Your task to perform on an android device: change notifications settings Image 0: 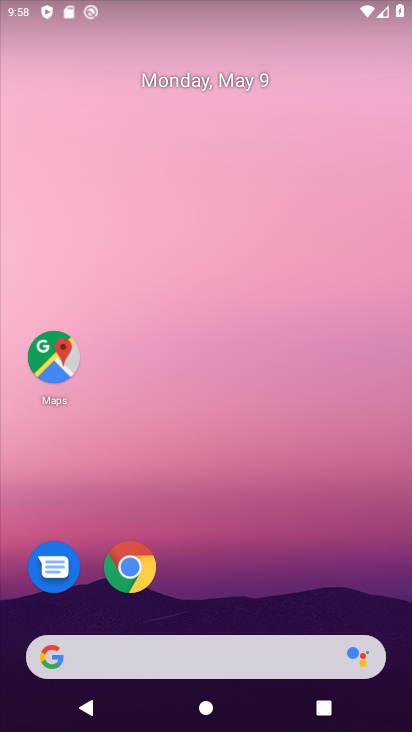
Step 0: click (45, 362)
Your task to perform on an android device: change notifications settings Image 1: 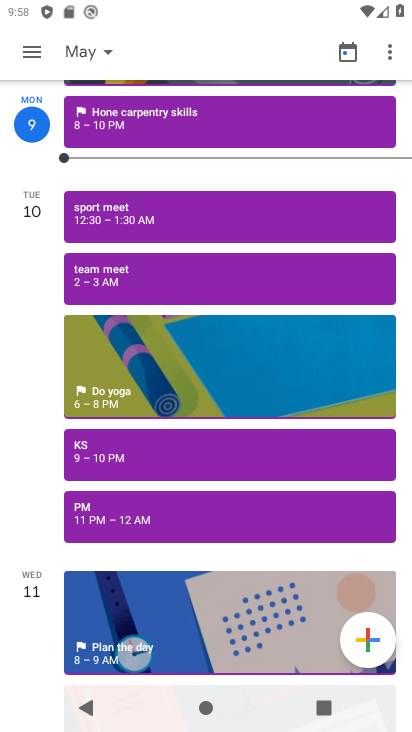
Step 1: press home button
Your task to perform on an android device: change notifications settings Image 2: 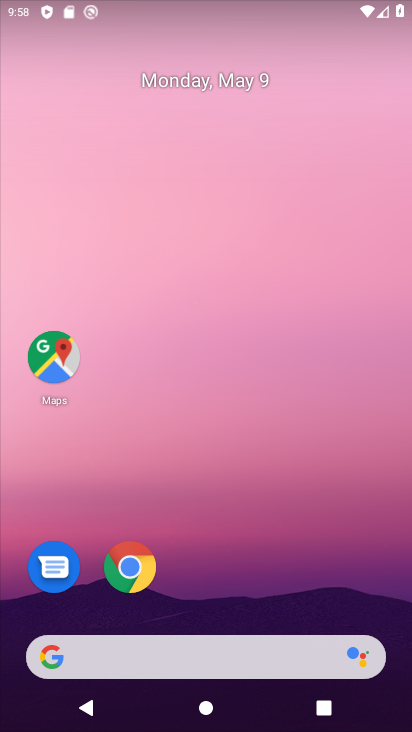
Step 2: drag from (246, 627) to (221, 215)
Your task to perform on an android device: change notifications settings Image 3: 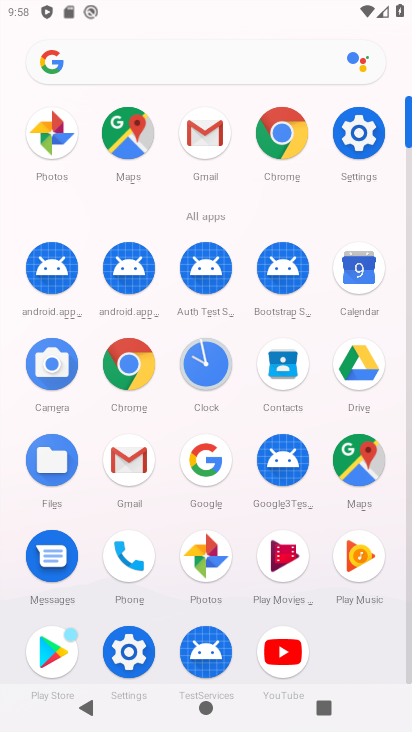
Step 3: click (350, 139)
Your task to perform on an android device: change notifications settings Image 4: 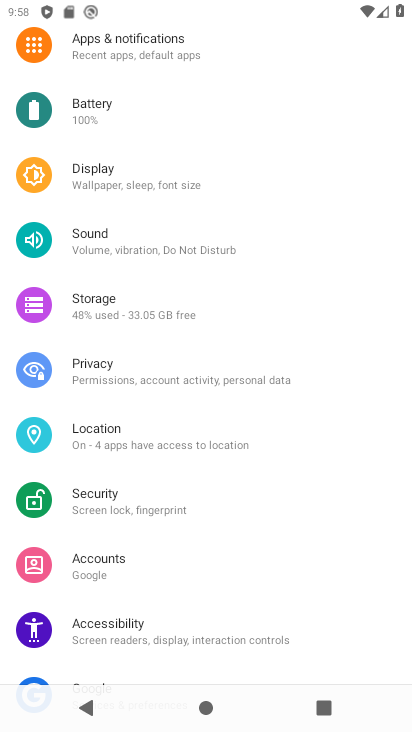
Step 4: click (113, 45)
Your task to perform on an android device: change notifications settings Image 5: 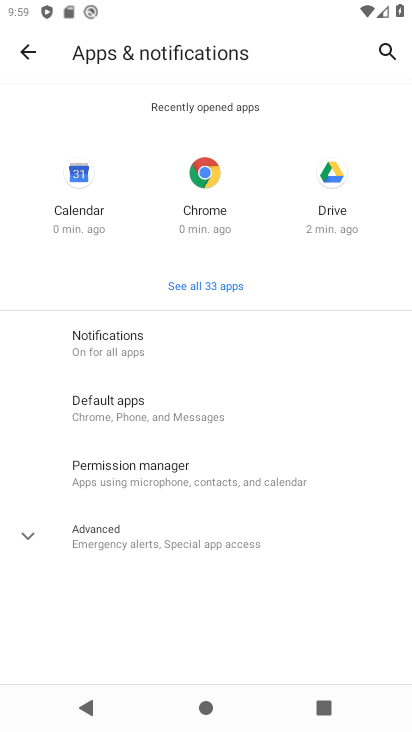
Step 5: click (104, 545)
Your task to perform on an android device: change notifications settings Image 6: 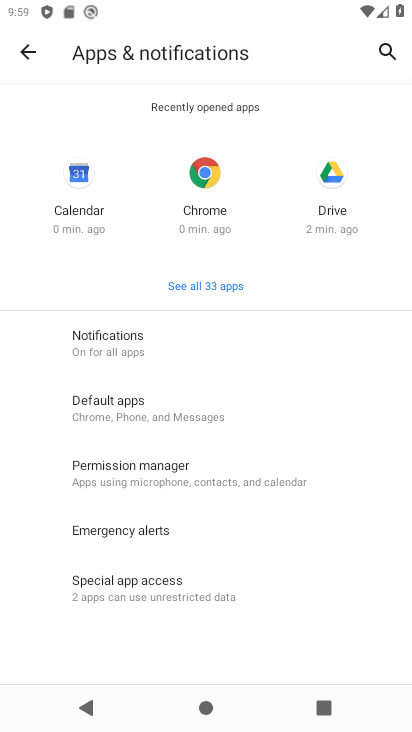
Step 6: click (113, 342)
Your task to perform on an android device: change notifications settings Image 7: 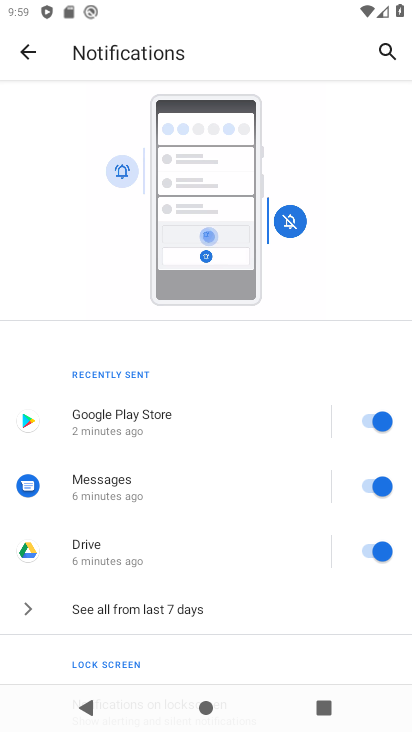
Step 7: click (378, 422)
Your task to perform on an android device: change notifications settings Image 8: 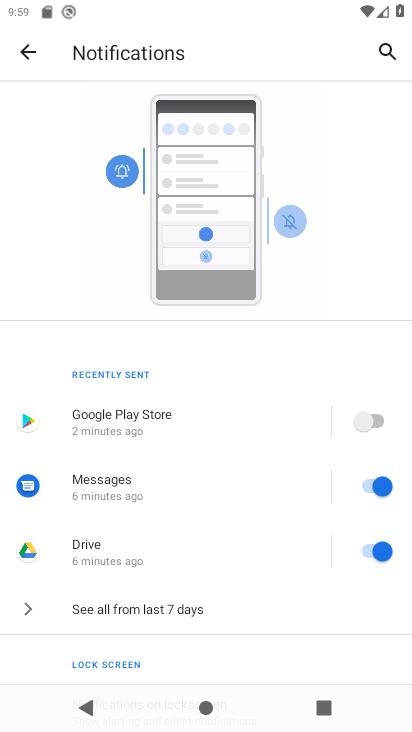
Step 8: click (371, 490)
Your task to perform on an android device: change notifications settings Image 9: 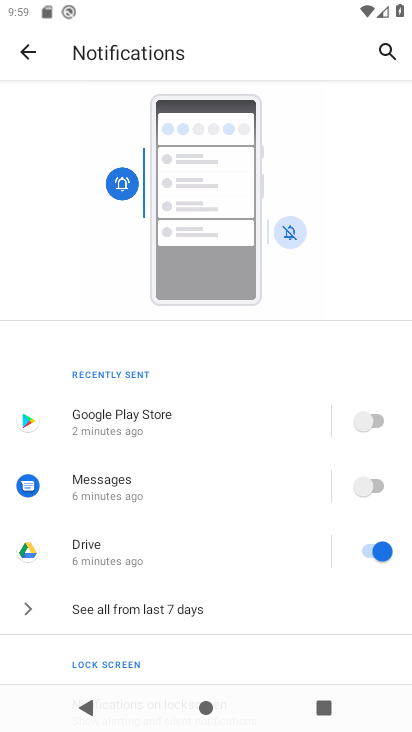
Step 9: click (372, 553)
Your task to perform on an android device: change notifications settings Image 10: 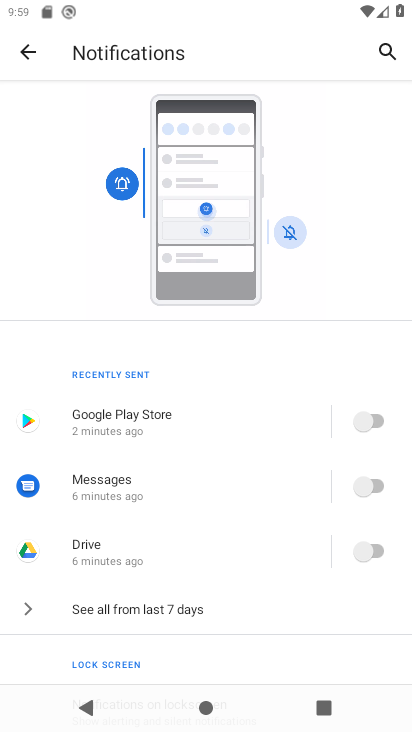
Step 10: click (174, 612)
Your task to perform on an android device: change notifications settings Image 11: 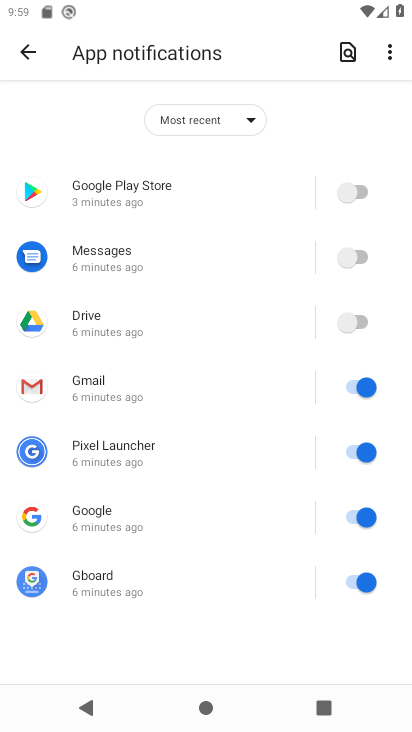
Step 11: click (356, 582)
Your task to perform on an android device: change notifications settings Image 12: 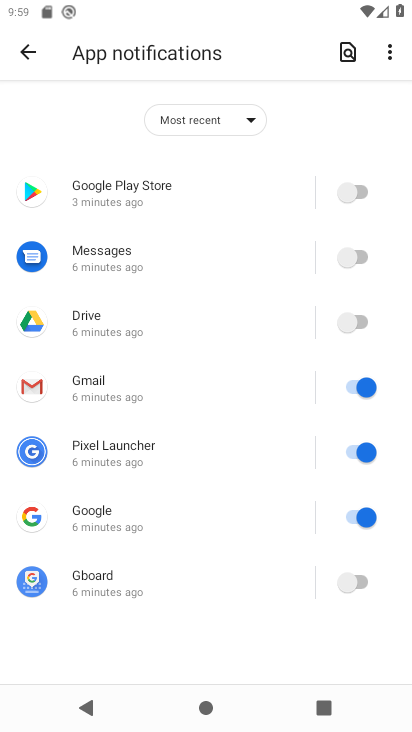
Step 12: click (352, 520)
Your task to perform on an android device: change notifications settings Image 13: 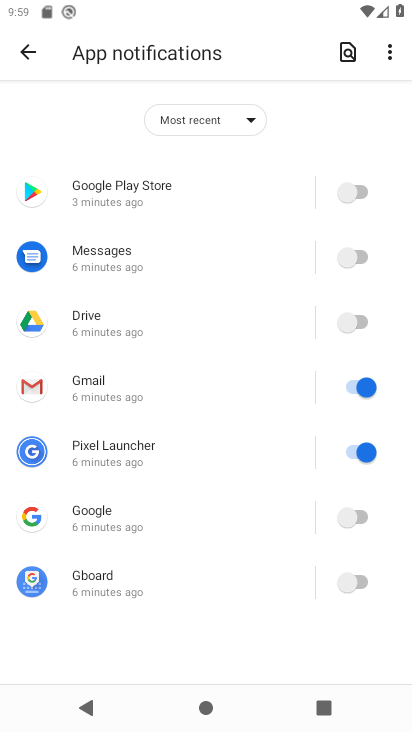
Step 13: click (363, 453)
Your task to perform on an android device: change notifications settings Image 14: 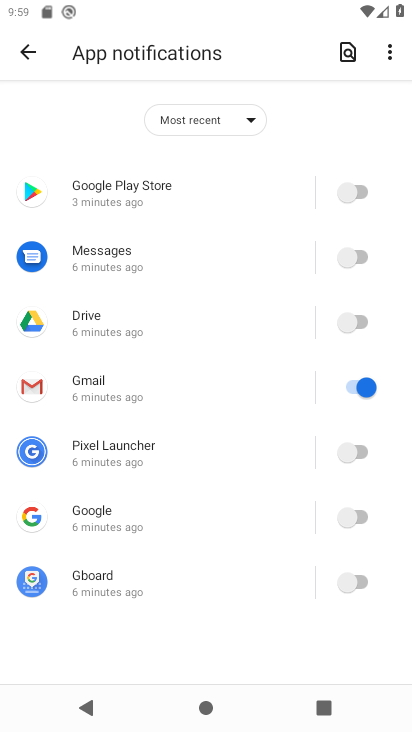
Step 14: click (353, 385)
Your task to perform on an android device: change notifications settings Image 15: 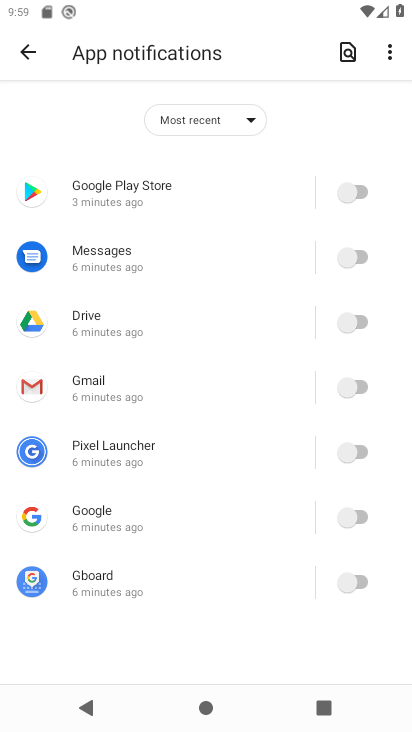
Step 15: task complete